Your task to perform on an android device: When is my next appointment? Image 0: 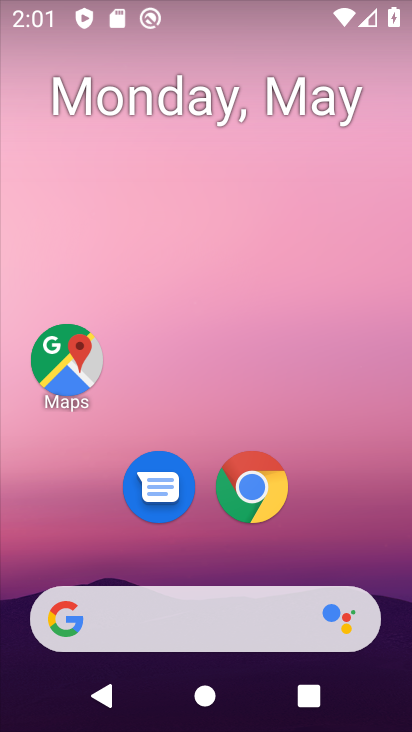
Step 0: click (82, 364)
Your task to perform on an android device: When is my next appointment? Image 1: 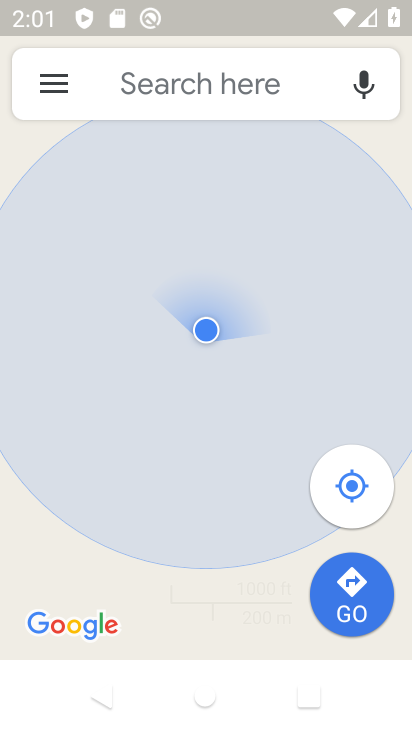
Step 1: press home button
Your task to perform on an android device: When is my next appointment? Image 2: 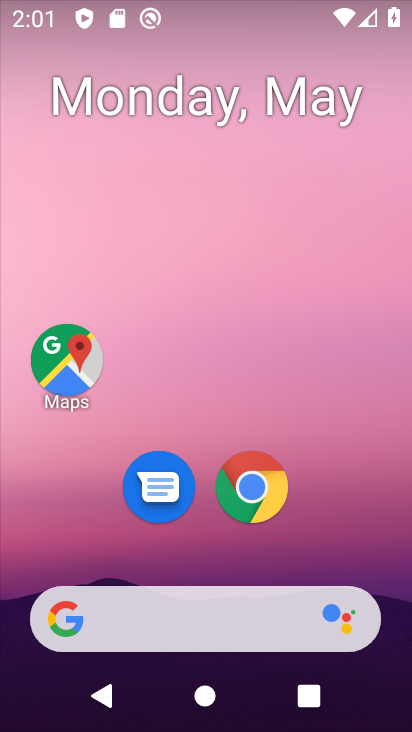
Step 2: drag from (392, 580) to (314, 154)
Your task to perform on an android device: When is my next appointment? Image 3: 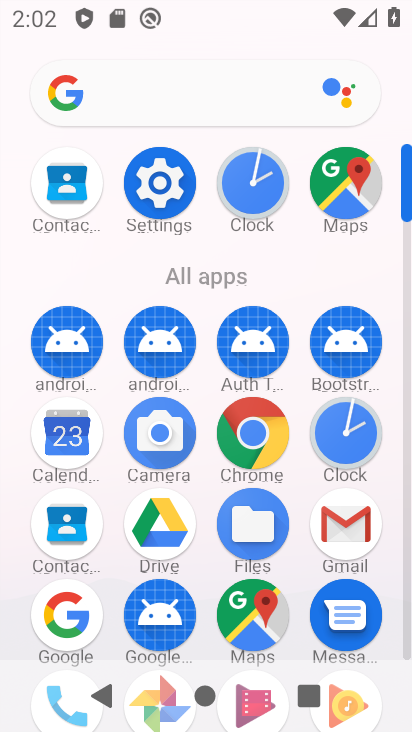
Step 3: click (90, 428)
Your task to perform on an android device: When is my next appointment? Image 4: 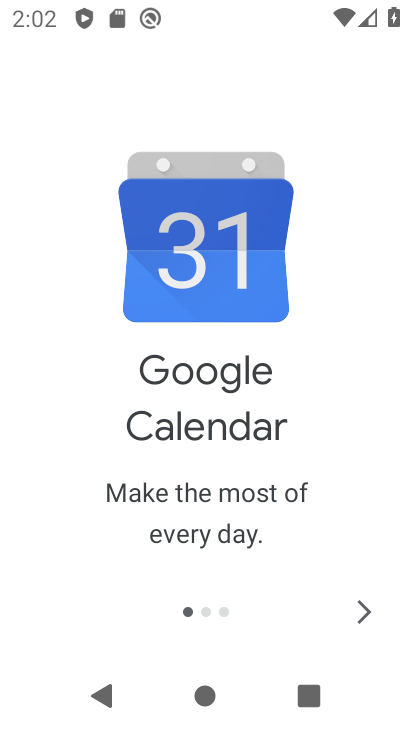
Step 4: click (360, 623)
Your task to perform on an android device: When is my next appointment? Image 5: 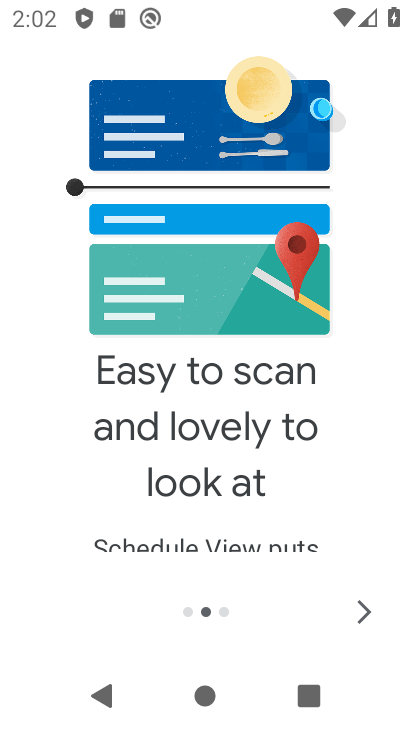
Step 5: click (360, 623)
Your task to perform on an android device: When is my next appointment? Image 6: 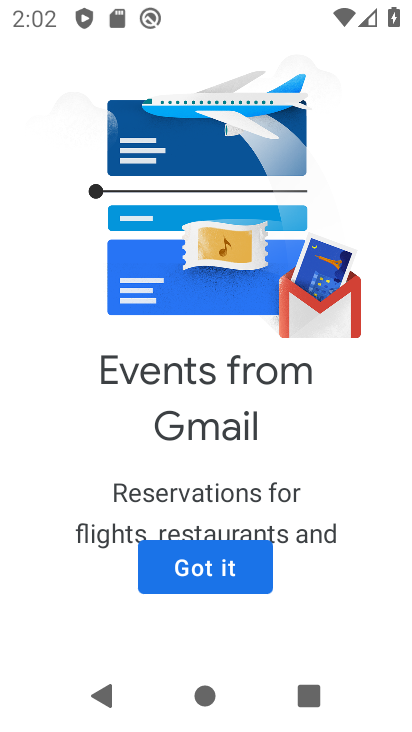
Step 6: click (247, 579)
Your task to perform on an android device: When is my next appointment? Image 7: 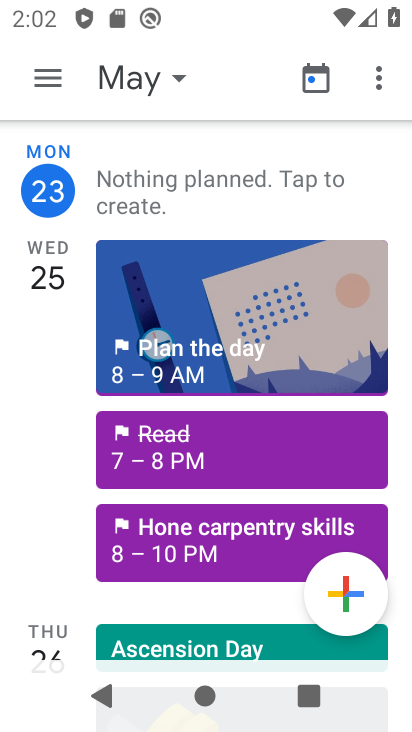
Step 7: task complete